Your task to perform on an android device: Open network settings Image 0: 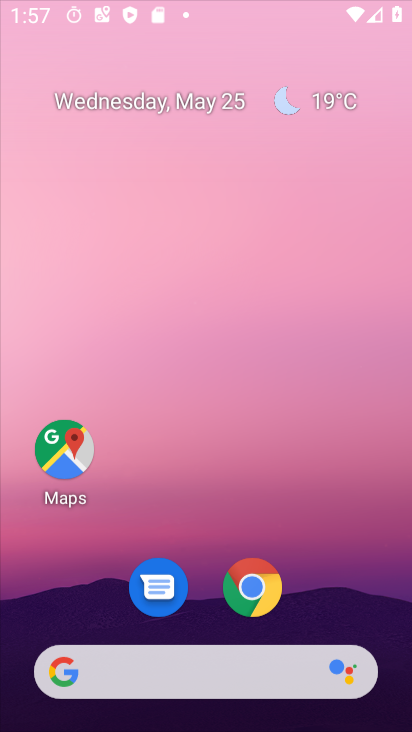
Step 0: click (249, 578)
Your task to perform on an android device: Open network settings Image 1: 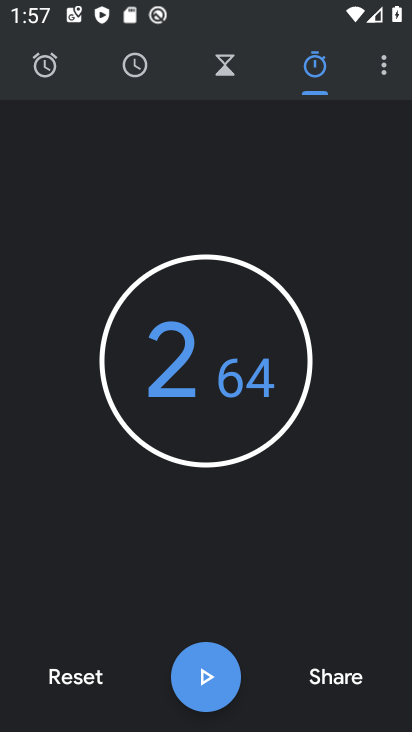
Step 1: press home button
Your task to perform on an android device: Open network settings Image 2: 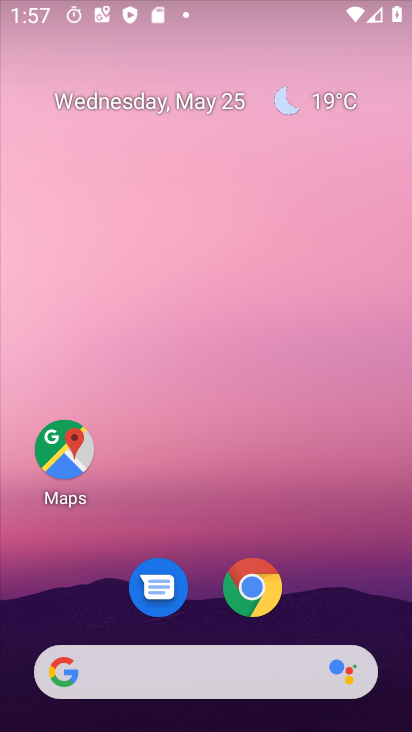
Step 2: drag from (336, 560) to (387, 42)
Your task to perform on an android device: Open network settings Image 3: 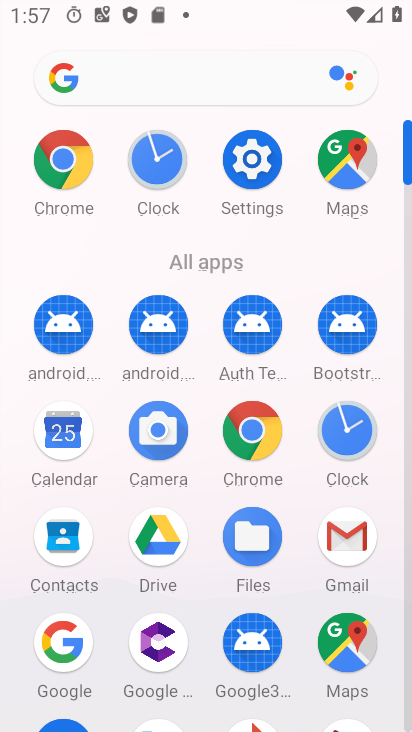
Step 3: click (247, 166)
Your task to perform on an android device: Open network settings Image 4: 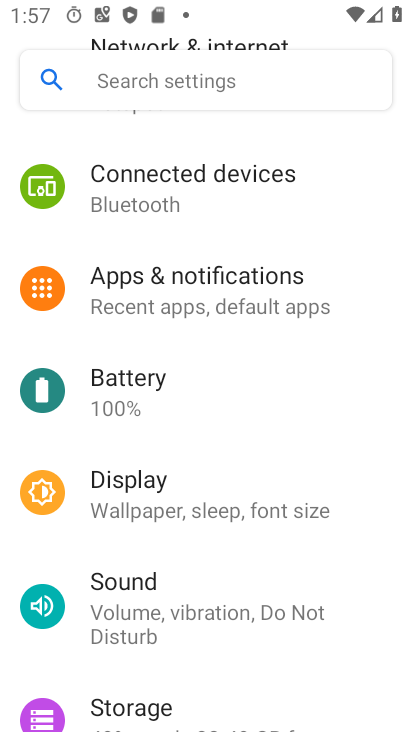
Step 4: drag from (200, 172) to (224, 442)
Your task to perform on an android device: Open network settings Image 5: 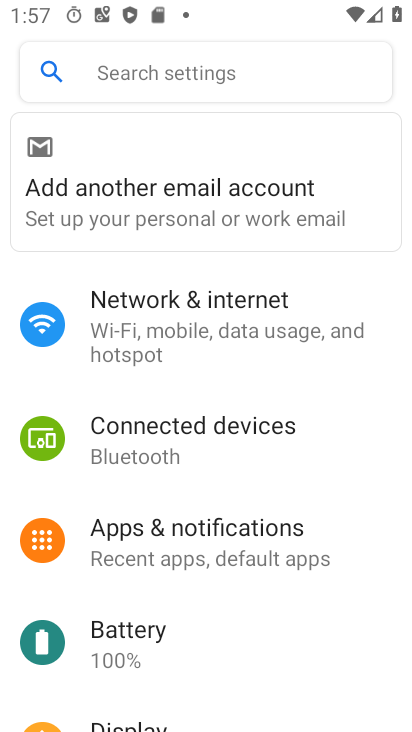
Step 5: click (207, 324)
Your task to perform on an android device: Open network settings Image 6: 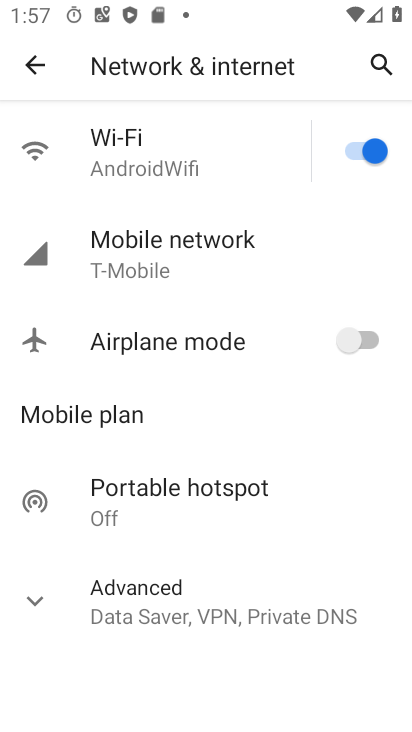
Step 6: click (137, 261)
Your task to perform on an android device: Open network settings Image 7: 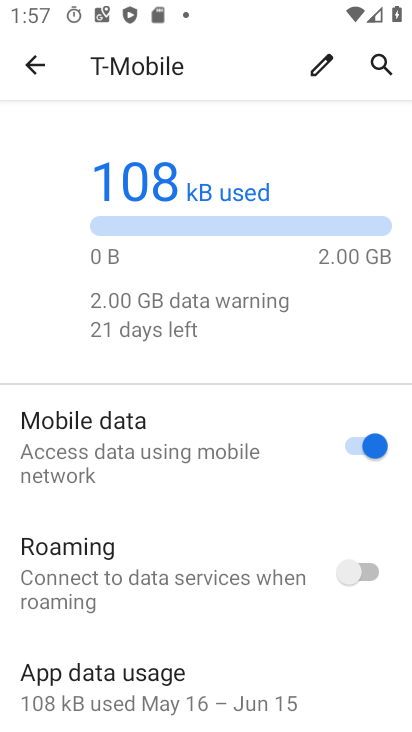
Step 7: task complete